Your task to perform on an android device: turn off location Image 0: 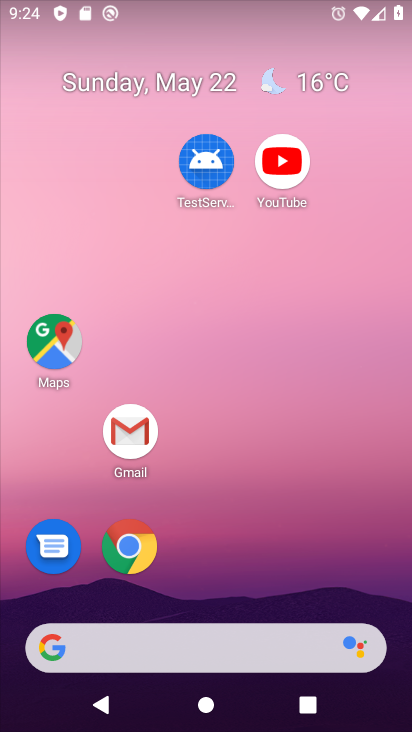
Step 0: drag from (236, 657) to (181, 315)
Your task to perform on an android device: turn off location Image 1: 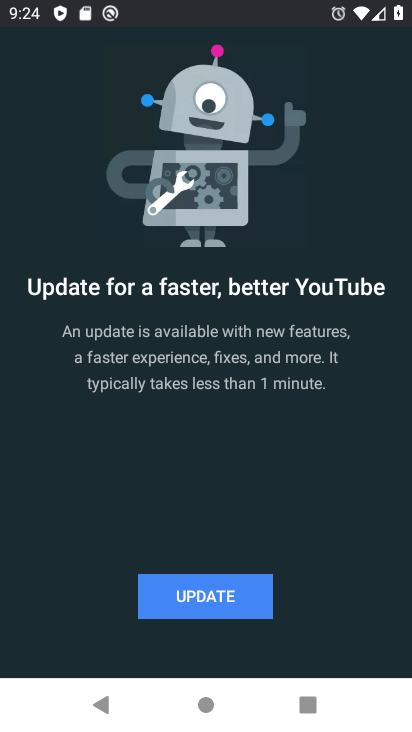
Step 1: press back button
Your task to perform on an android device: turn off location Image 2: 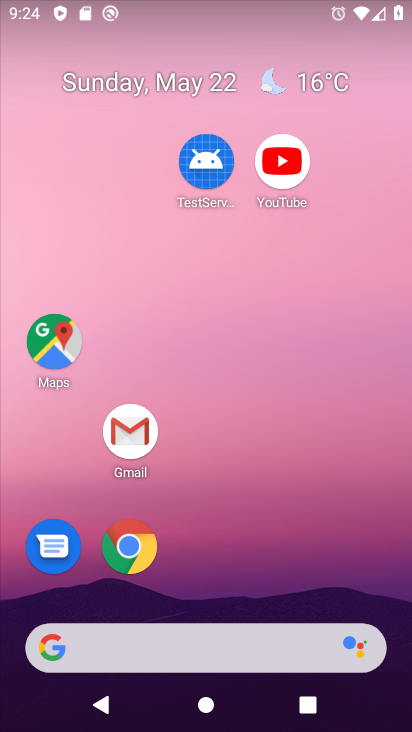
Step 2: drag from (281, 691) to (302, 233)
Your task to perform on an android device: turn off location Image 3: 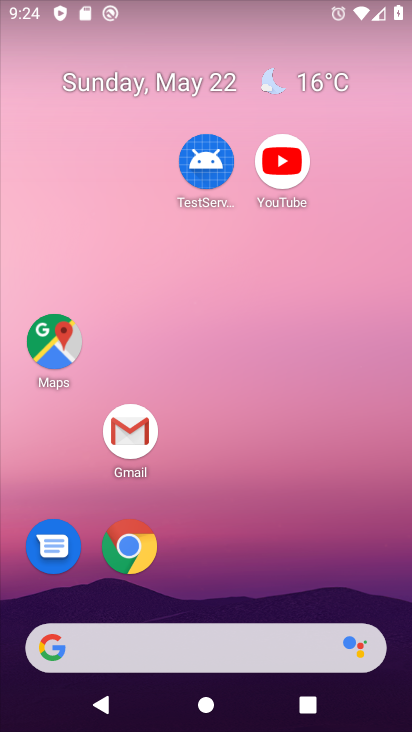
Step 3: drag from (274, 710) to (233, 131)
Your task to perform on an android device: turn off location Image 4: 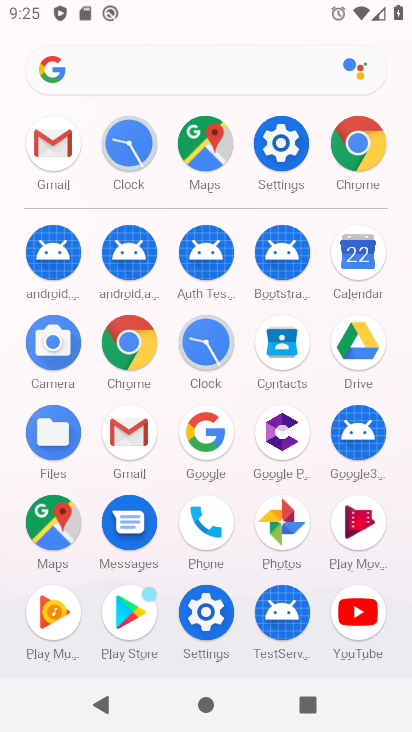
Step 4: click (286, 136)
Your task to perform on an android device: turn off location Image 5: 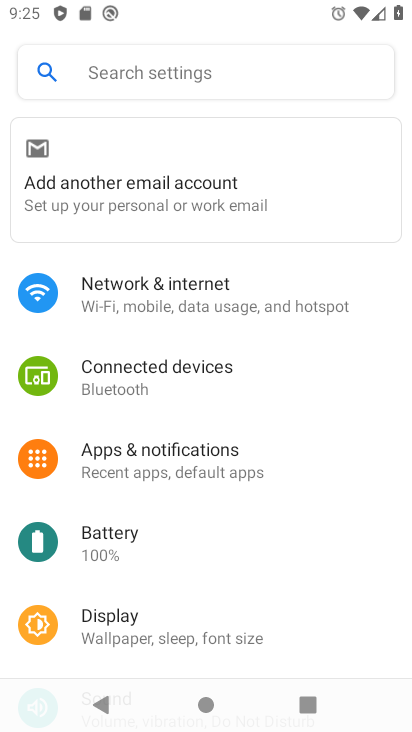
Step 5: drag from (168, 609) to (155, 272)
Your task to perform on an android device: turn off location Image 6: 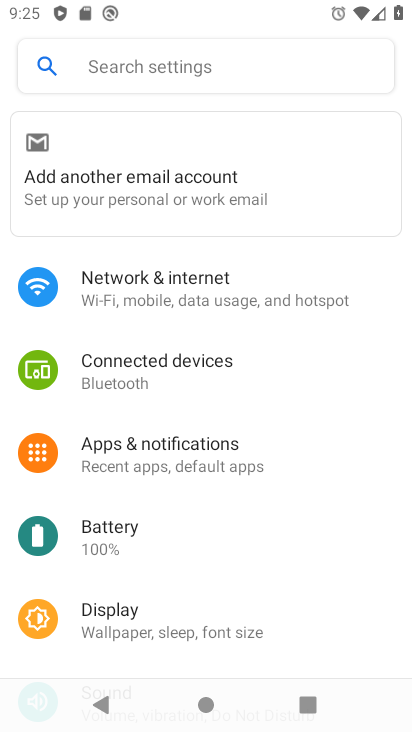
Step 6: drag from (88, 577) to (86, 200)
Your task to perform on an android device: turn off location Image 7: 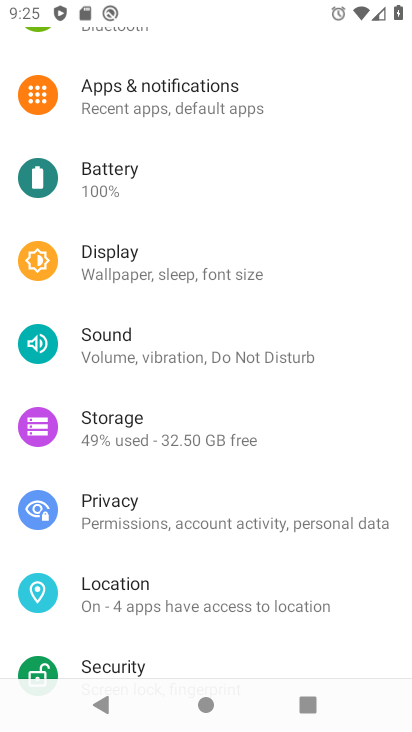
Step 7: drag from (120, 474) to (120, 220)
Your task to perform on an android device: turn off location Image 8: 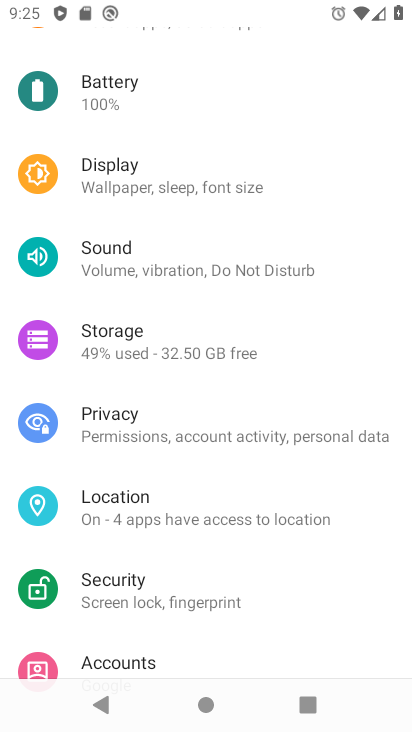
Step 8: drag from (203, 449) to (178, 162)
Your task to perform on an android device: turn off location Image 9: 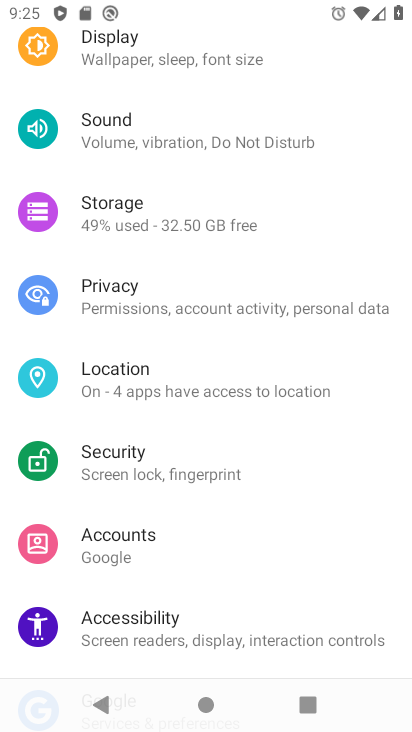
Step 9: drag from (205, 509) to (202, 190)
Your task to perform on an android device: turn off location Image 10: 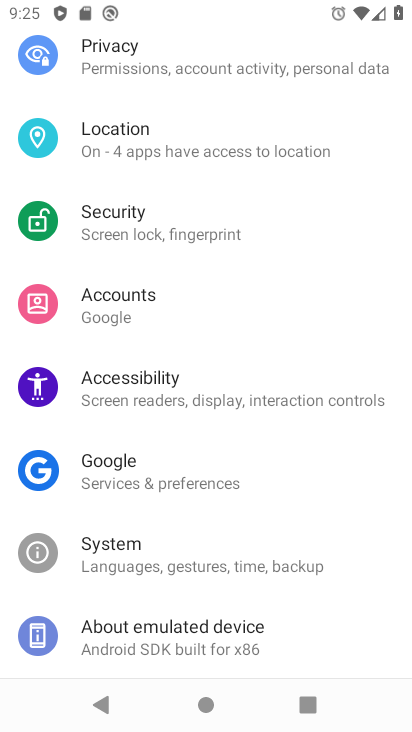
Step 10: click (140, 153)
Your task to perform on an android device: turn off location Image 11: 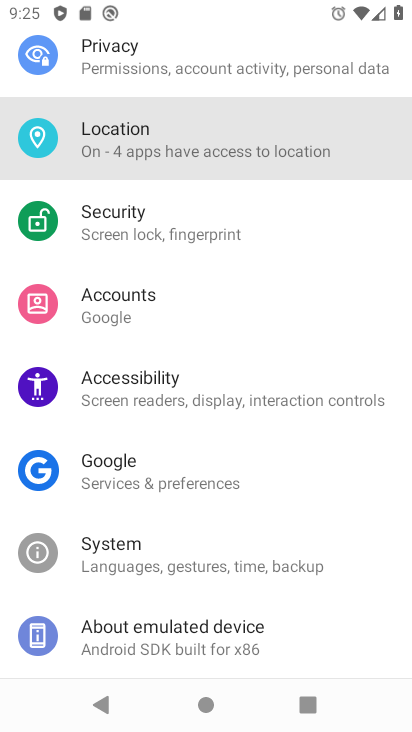
Step 11: click (140, 152)
Your task to perform on an android device: turn off location Image 12: 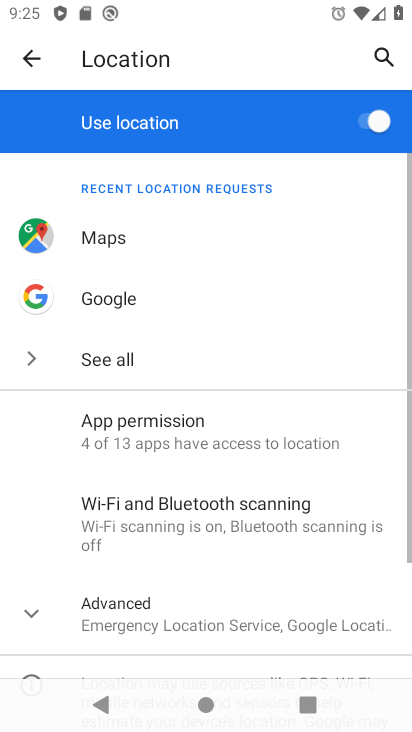
Step 12: click (370, 116)
Your task to perform on an android device: turn off location Image 13: 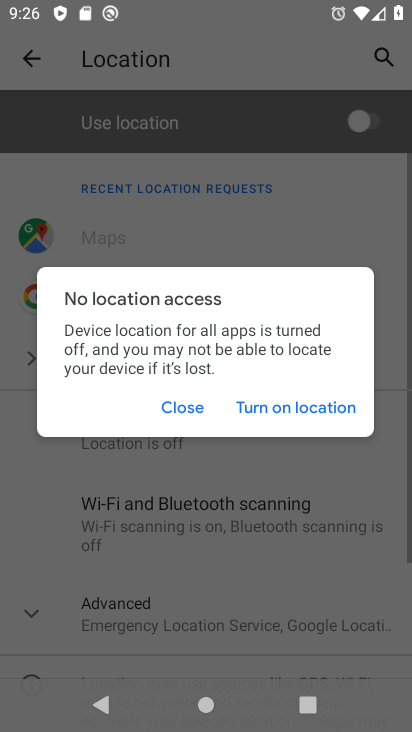
Step 13: task complete